Your task to perform on an android device: open app "Adobe Acrobat Reader" Image 0: 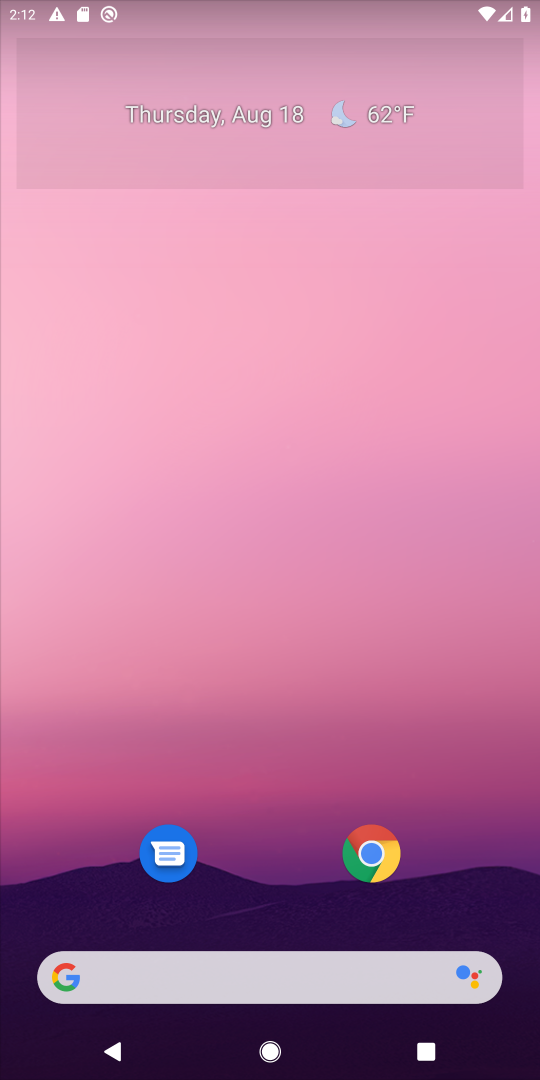
Step 0: drag from (523, 915) to (184, 2)
Your task to perform on an android device: open app "Adobe Acrobat Reader" Image 1: 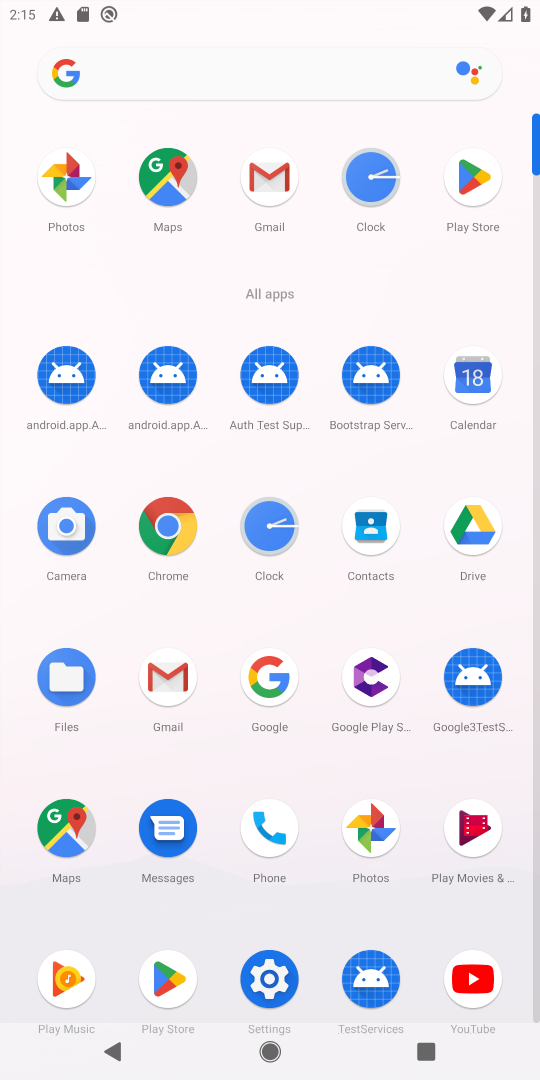
Step 1: click (472, 174)
Your task to perform on an android device: open app "Adobe Acrobat Reader" Image 2: 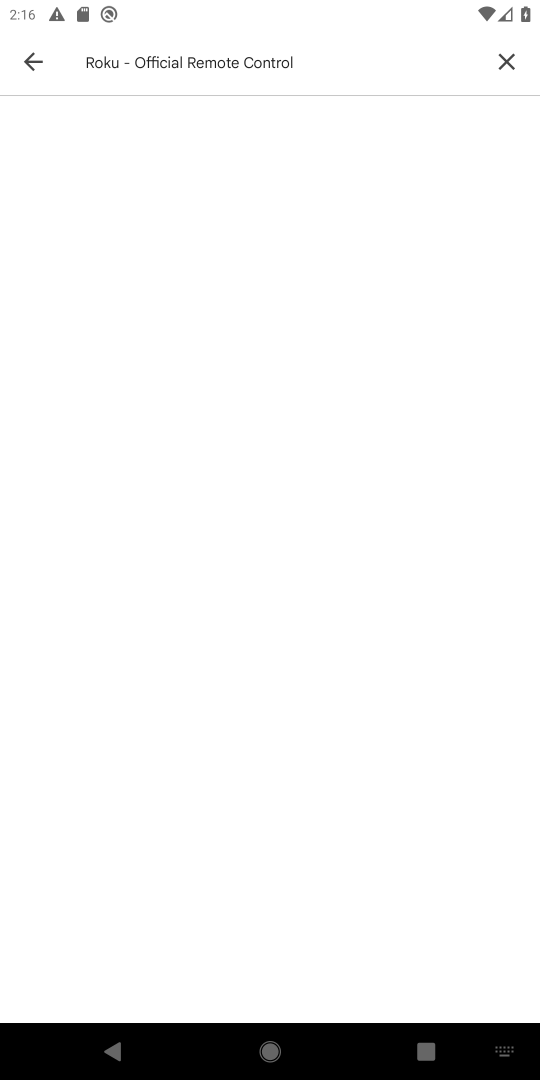
Step 2: click (506, 66)
Your task to perform on an android device: open app "Adobe Acrobat Reader" Image 3: 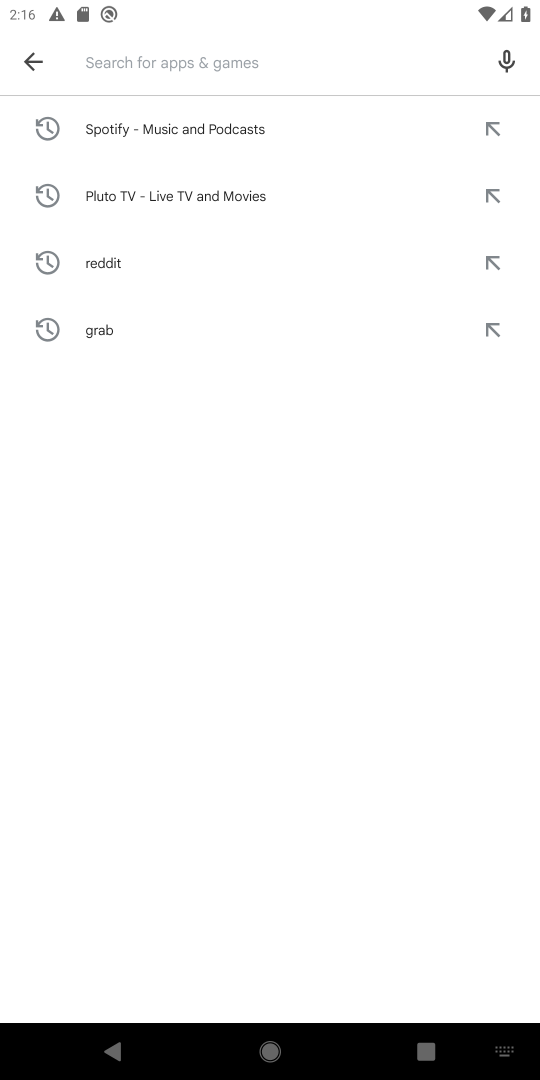
Step 3: type "Adobe Acrobat Reader"
Your task to perform on an android device: open app "Adobe Acrobat Reader" Image 4: 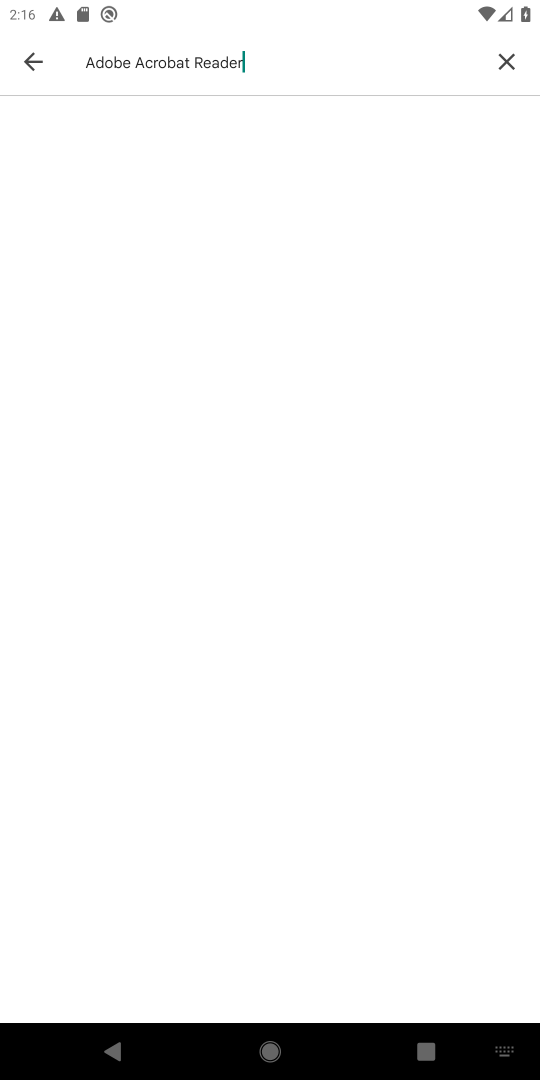
Step 4: task complete